Your task to perform on an android device: open wifi settings Image 0: 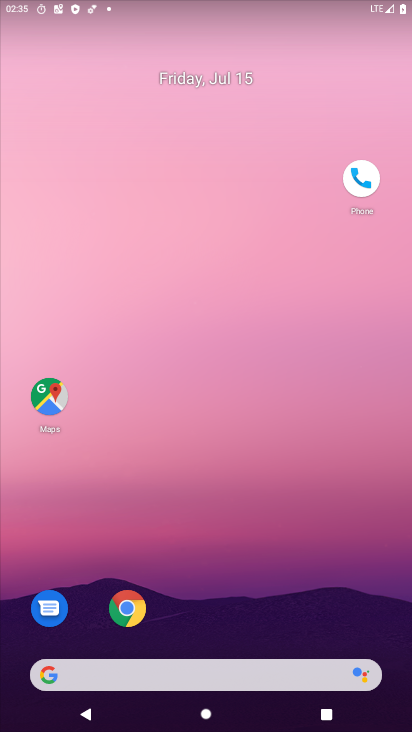
Step 0: drag from (208, 479) to (304, 110)
Your task to perform on an android device: open wifi settings Image 1: 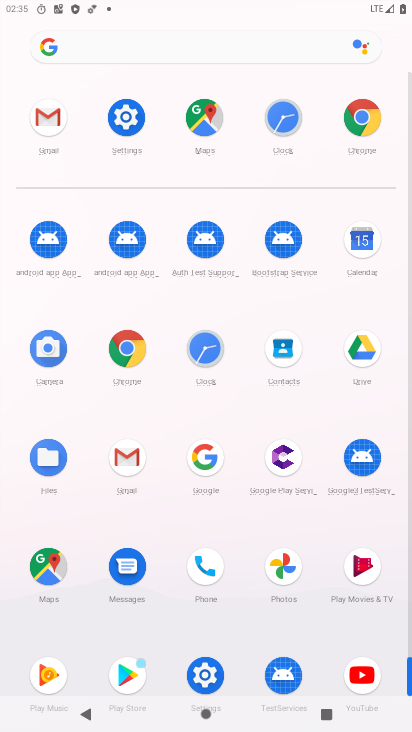
Step 1: click (193, 672)
Your task to perform on an android device: open wifi settings Image 2: 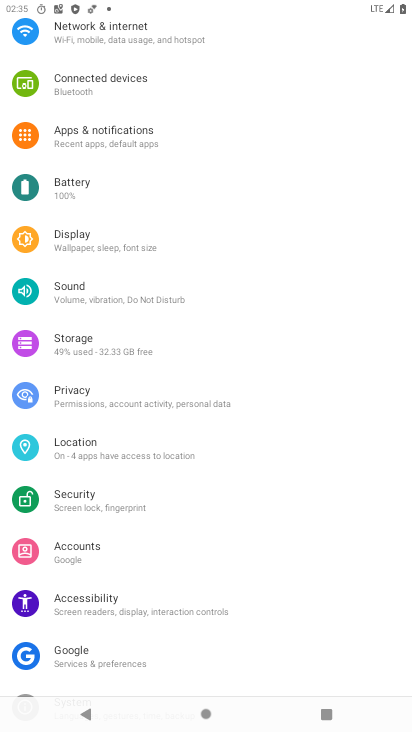
Step 2: drag from (167, 162) to (196, 585)
Your task to perform on an android device: open wifi settings Image 3: 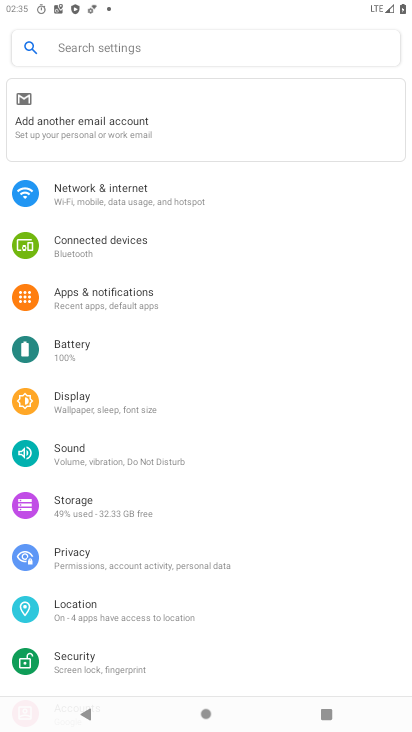
Step 3: click (156, 199)
Your task to perform on an android device: open wifi settings Image 4: 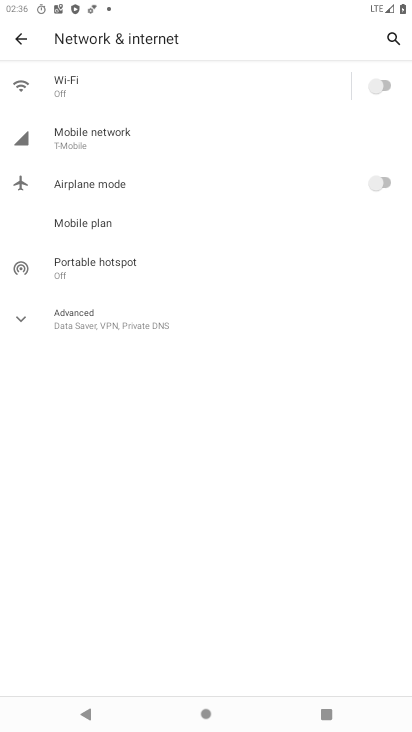
Step 4: click (156, 97)
Your task to perform on an android device: open wifi settings Image 5: 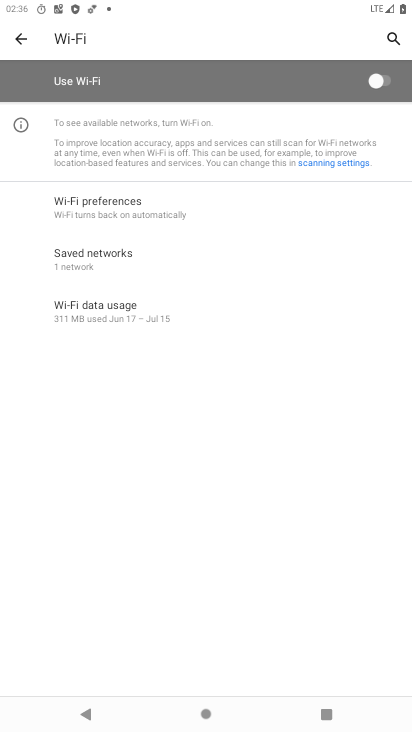
Step 5: task complete